Your task to perform on an android device: turn off airplane mode Image 0: 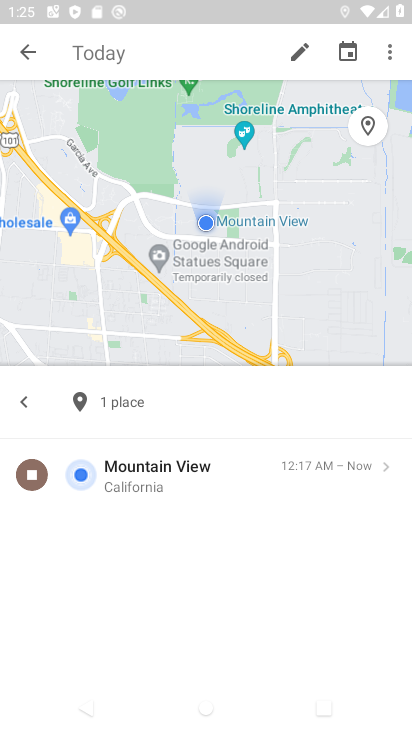
Step 0: press home button
Your task to perform on an android device: turn off airplane mode Image 1: 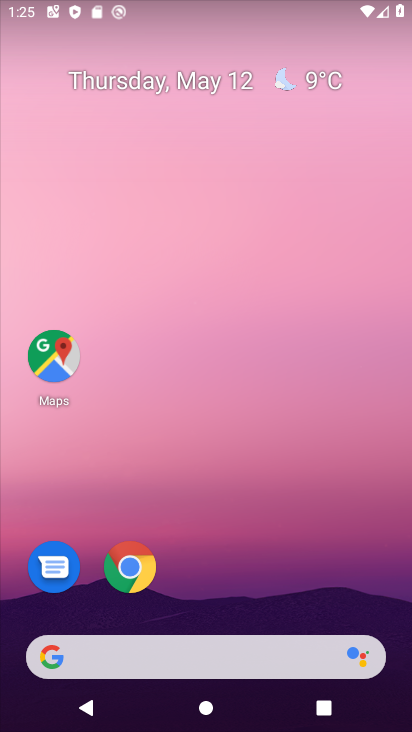
Step 1: task complete